Your task to perform on an android device: Open the phone app and click the voicemail tab. Image 0: 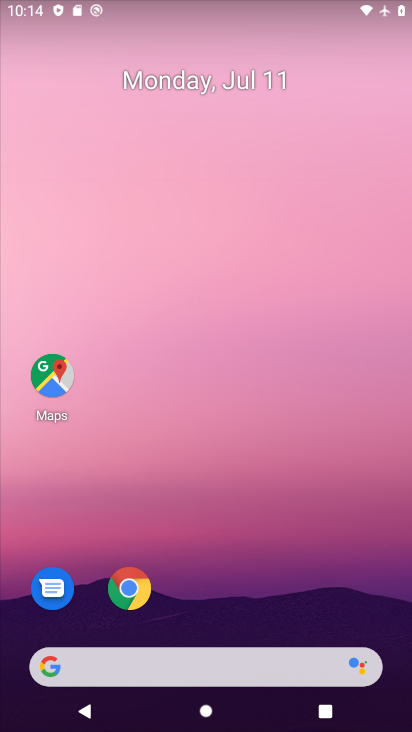
Step 0: drag from (202, 656) to (329, 74)
Your task to perform on an android device: Open the phone app and click the voicemail tab. Image 1: 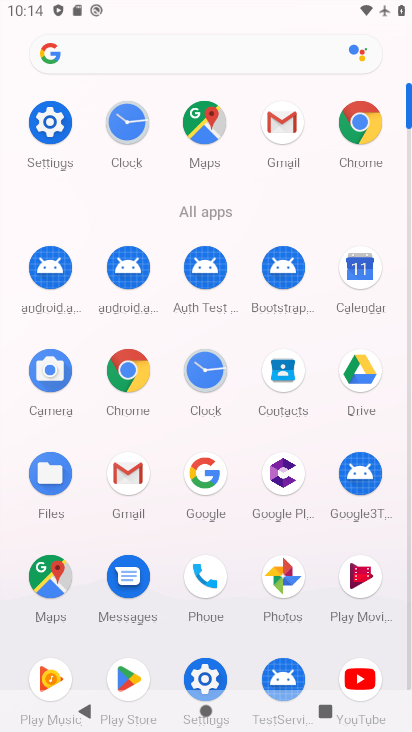
Step 1: click (206, 579)
Your task to perform on an android device: Open the phone app and click the voicemail tab. Image 2: 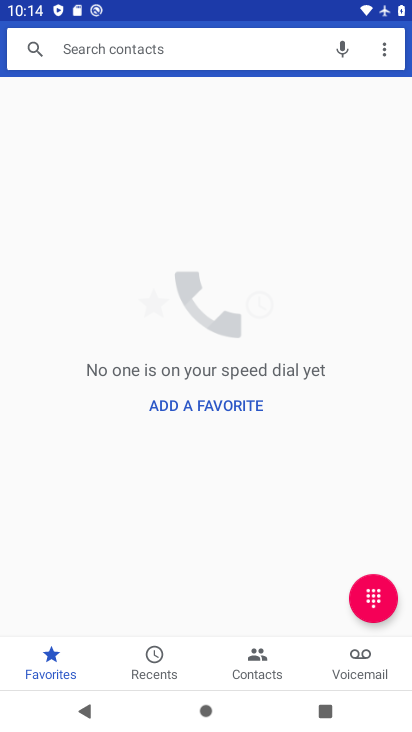
Step 2: click (370, 650)
Your task to perform on an android device: Open the phone app and click the voicemail tab. Image 3: 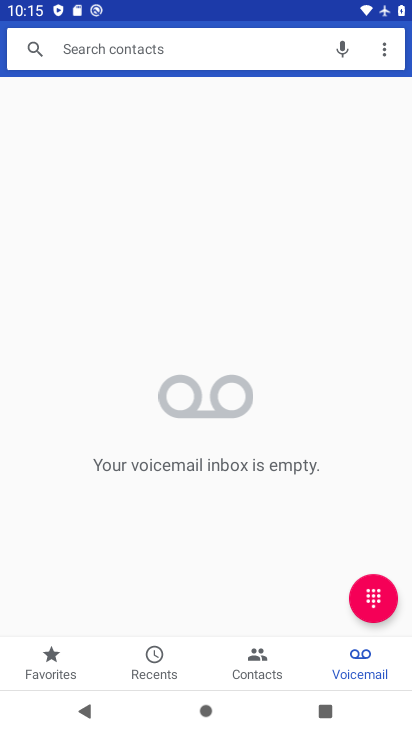
Step 3: task complete